Your task to perform on an android device: What's the weather today? Image 0: 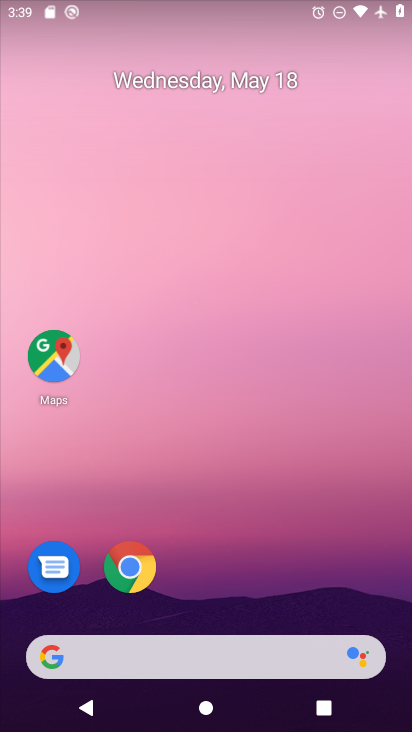
Step 0: drag from (194, 571) to (258, 220)
Your task to perform on an android device: What's the weather today? Image 1: 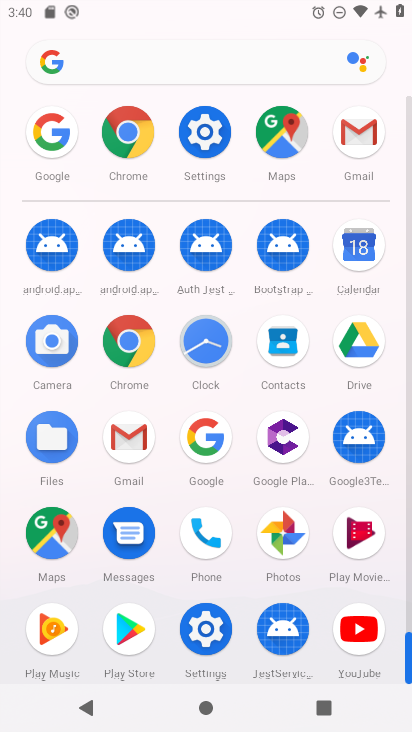
Step 1: click (120, 128)
Your task to perform on an android device: What's the weather today? Image 2: 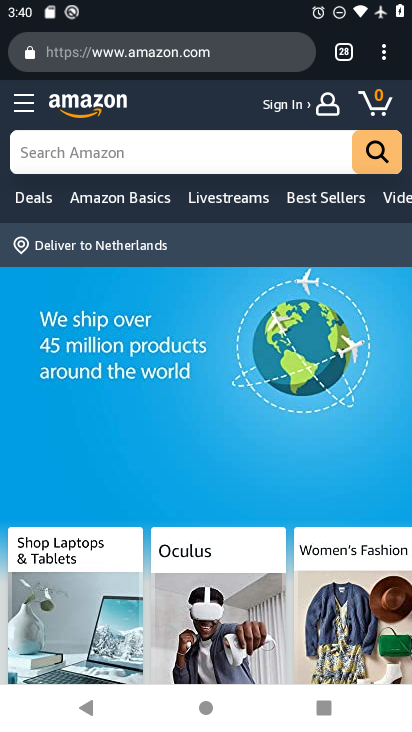
Step 2: click (375, 51)
Your task to perform on an android device: What's the weather today? Image 3: 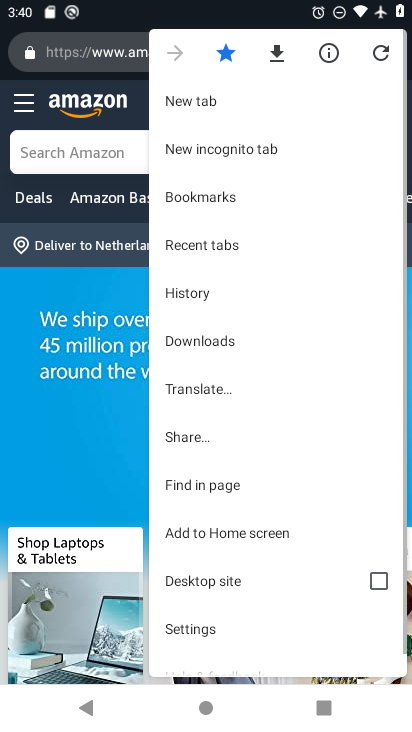
Step 3: click (211, 98)
Your task to perform on an android device: What's the weather today? Image 4: 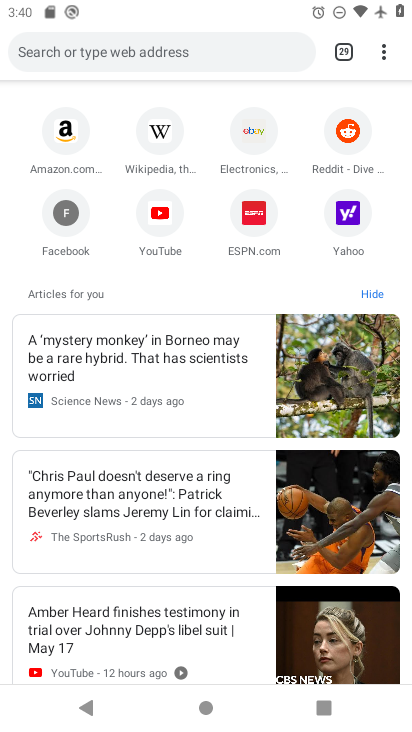
Step 4: click (181, 34)
Your task to perform on an android device: What's the weather today? Image 5: 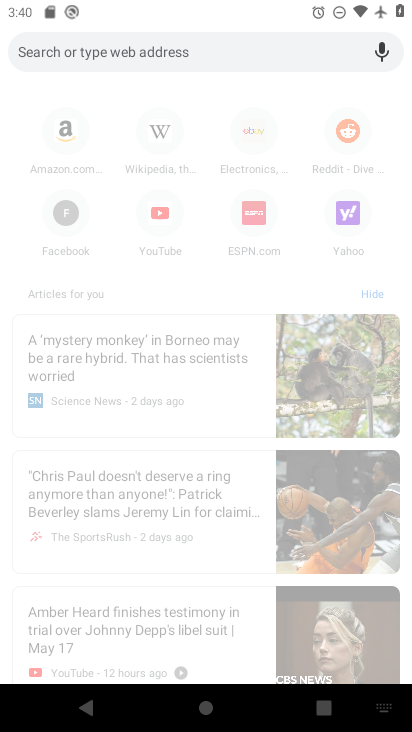
Step 5: type "What's the weather today?"
Your task to perform on an android device: What's the weather today? Image 6: 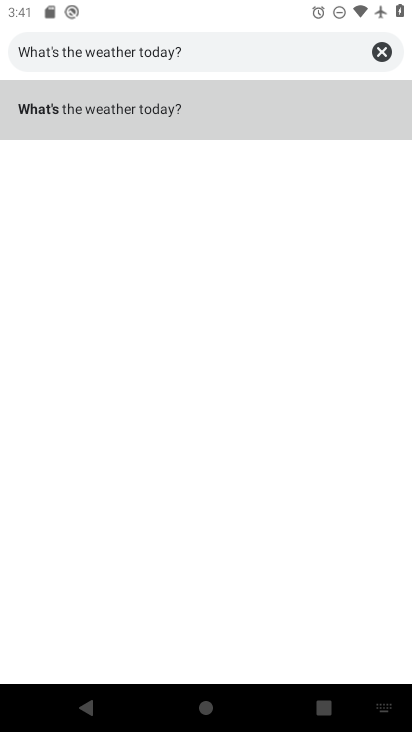
Step 6: click (303, 96)
Your task to perform on an android device: What's the weather today? Image 7: 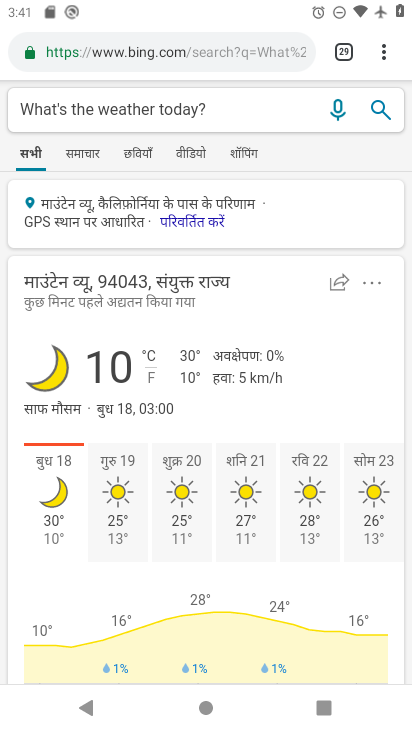
Step 7: task complete